Your task to perform on an android device: open app "Google Sheets" (install if not already installed) Image 0: 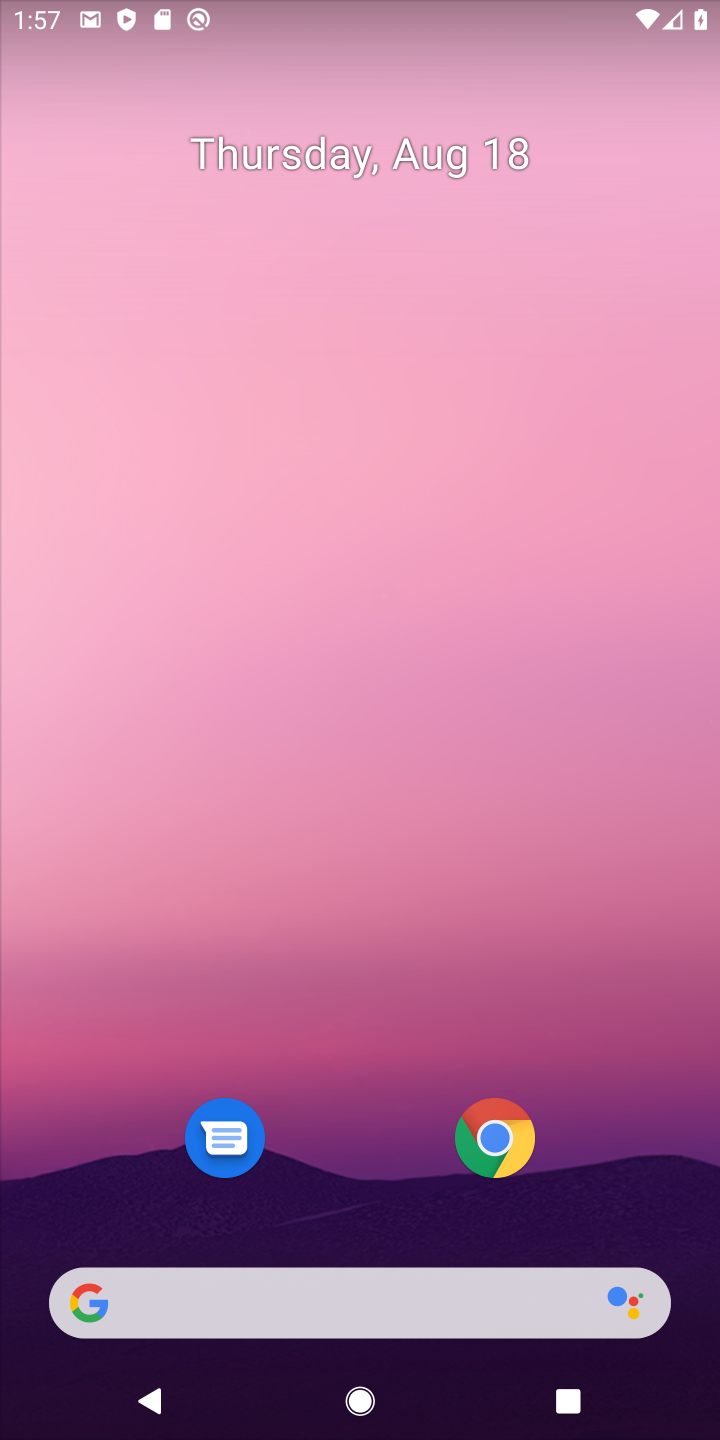
Step 0: drag from (362, 1267) to (365, 273)
Your task to perform on an android device: open app "Google Sheets" (install if not already installed) Image 1: 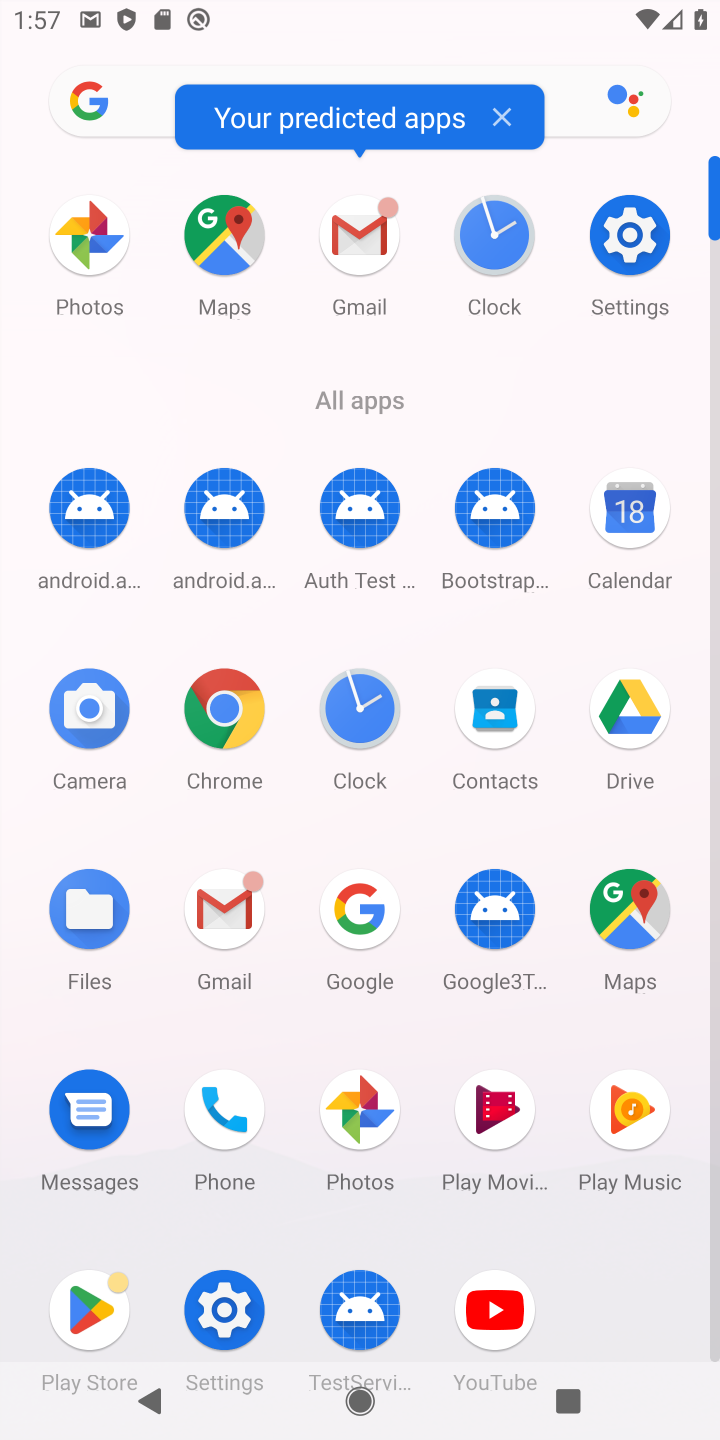
Step 1: click (88, 1285)
Your task to perform on an android device: open app "Google Sheets" (install if not already installed) Image 2: 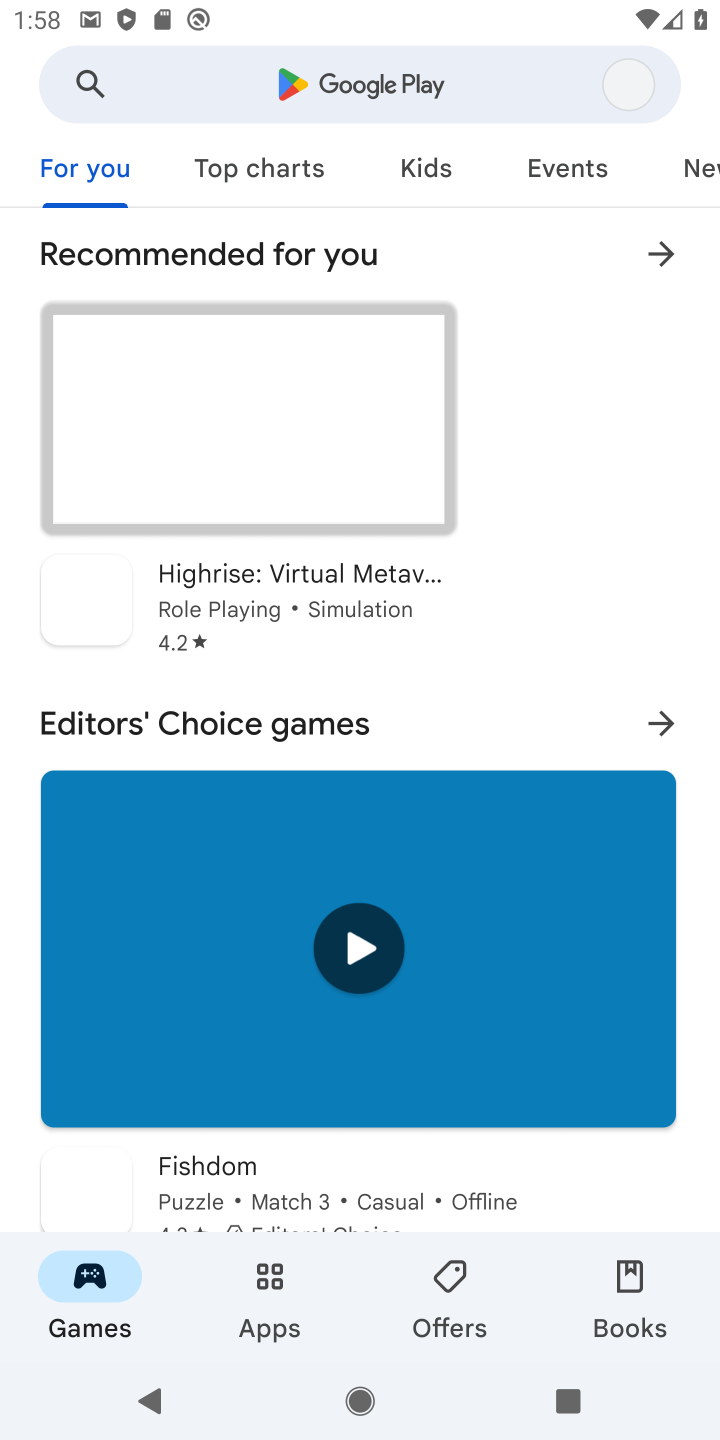
Step 2: click (255, 89)
Your task to perform on an android device: open app "Google Sheets" (install if not already installed) Image 3: 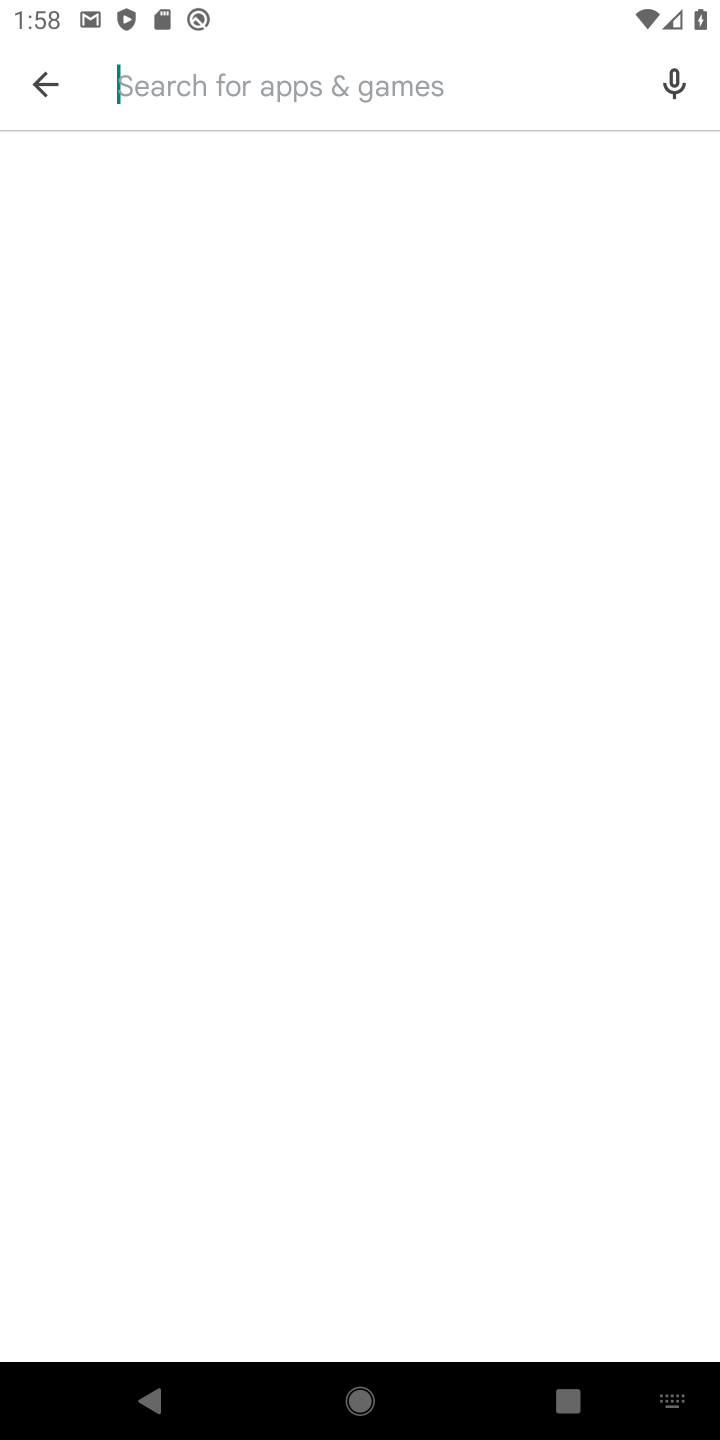
Step 3: type "Google Sheets"
Your task to perform on an android device: open app "Google Sheets" (install if not already installed) Image 4: 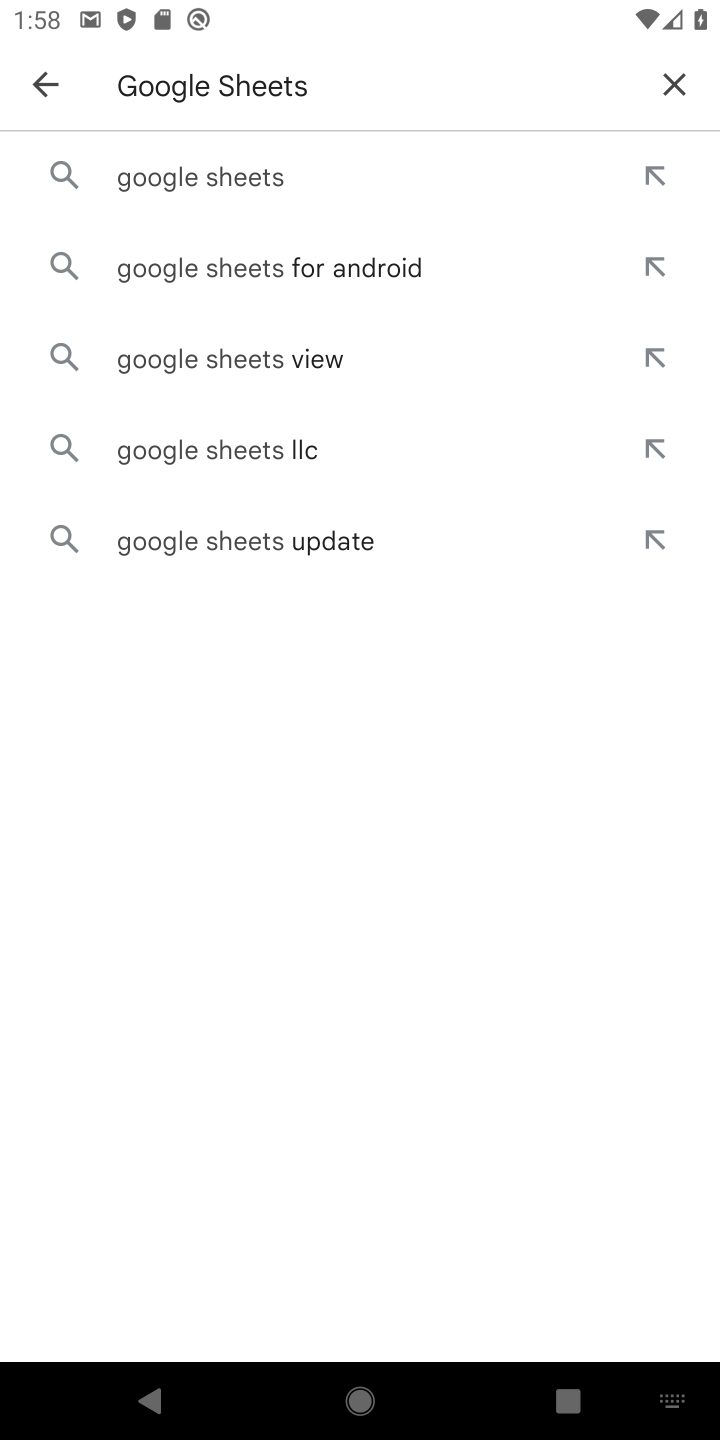
Step 4: click (164, 183)
Your task to perform on an android device: open app "Google Sheets" (install if not already installed) Image 5: 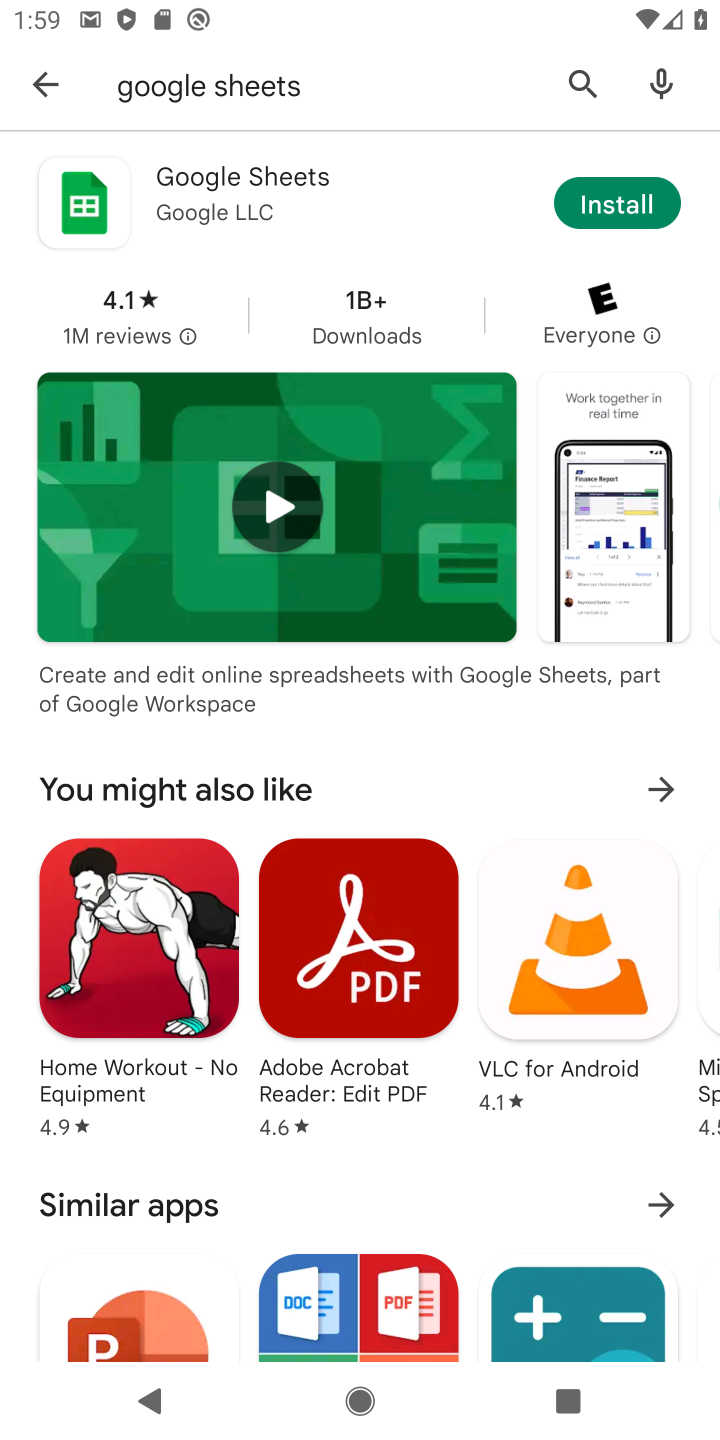
Step 5: click (636, 212)
Your task to perform on an android device: open app "Google Sheets" (install if not already installed) Image 6: 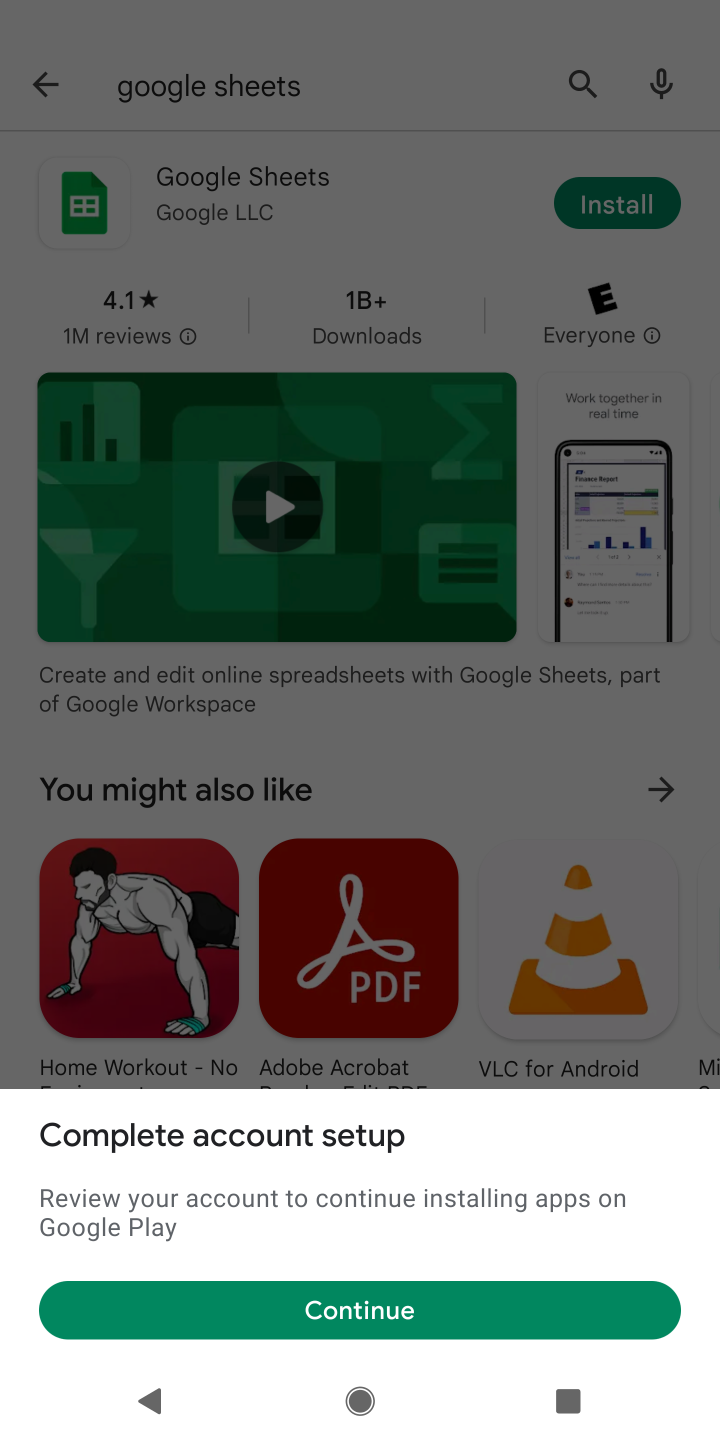
Step 6: click (202, 1280)
Your task to perform on an android device: open app "Google Sheets" (install if not already installed) Image 7: 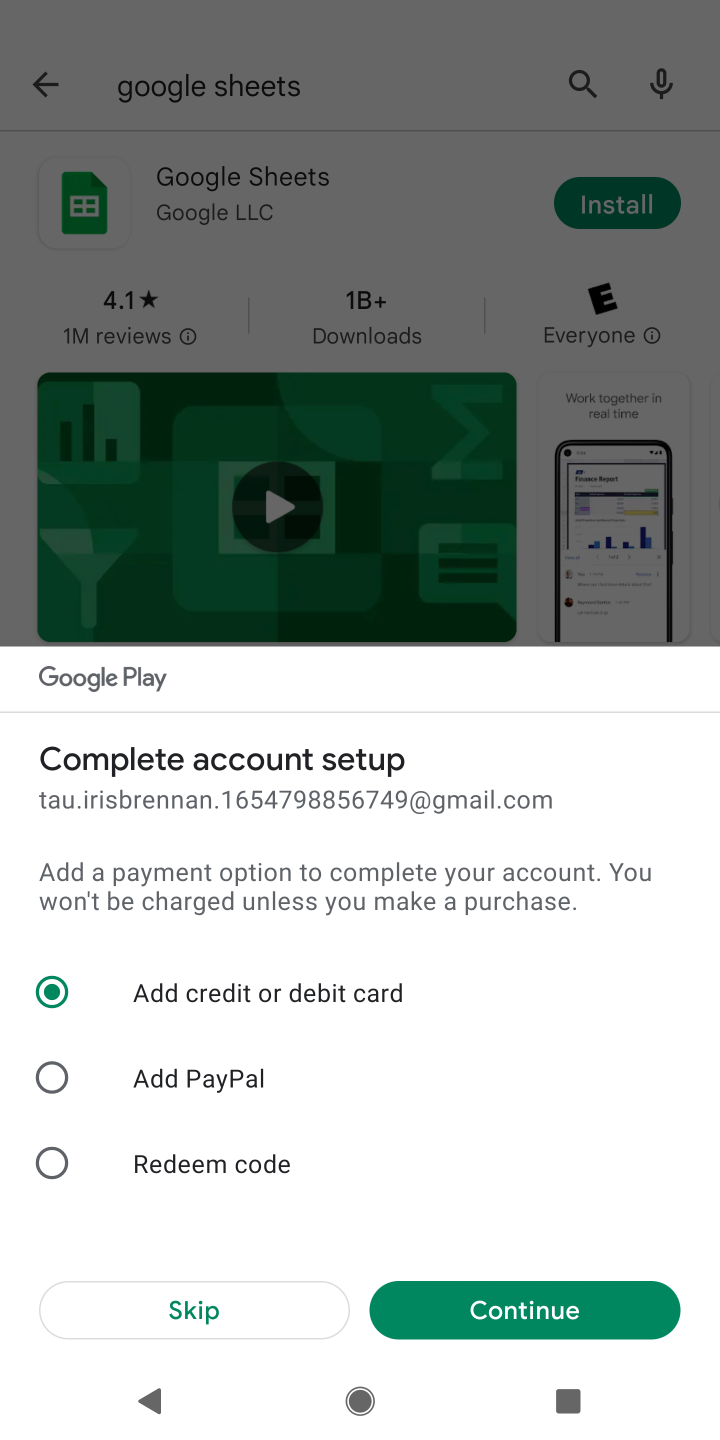
Step 7: click (79, 1288)
Your task to perform on an android device: open app "Google Sheets" (install if not already installed) Image 8: 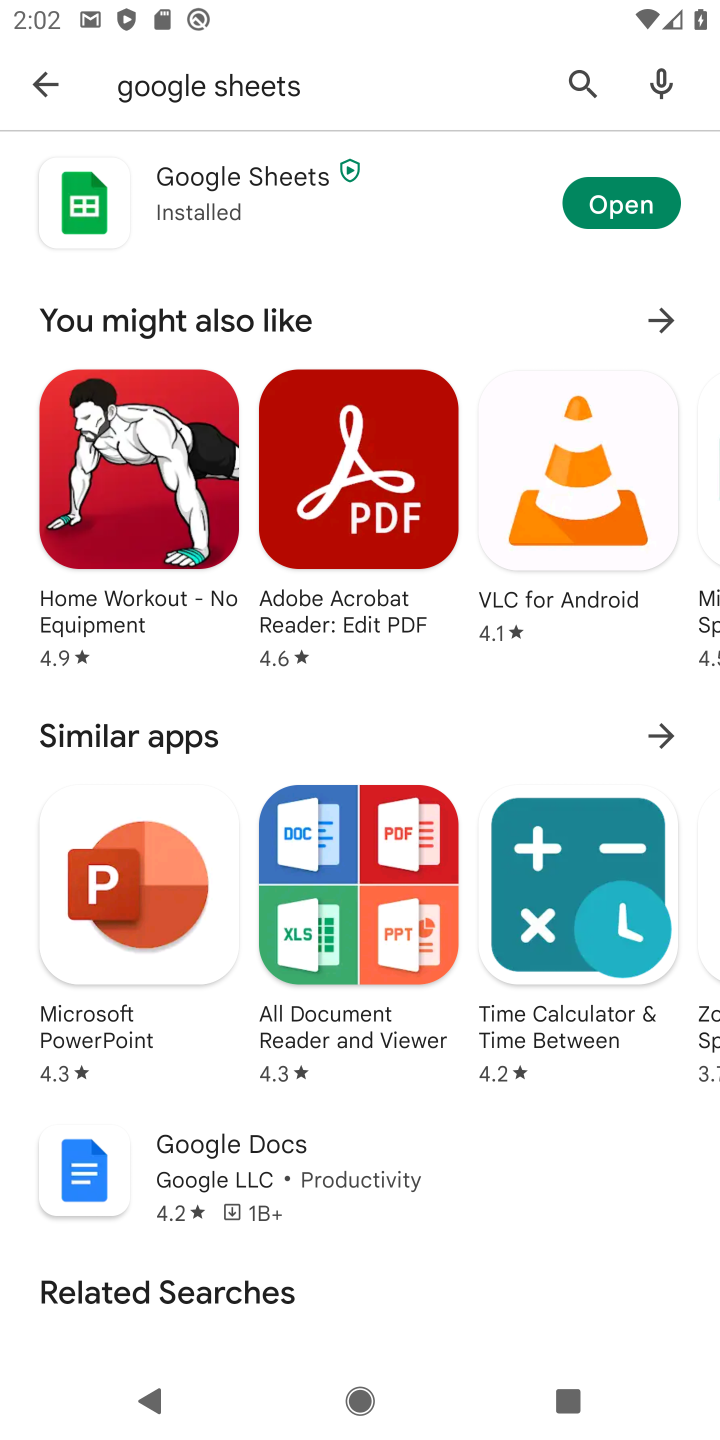
Step 8: click (608, 195)
Your task to perform on an android device: open app "Google Sheets" (install if not already installed) Image 9: 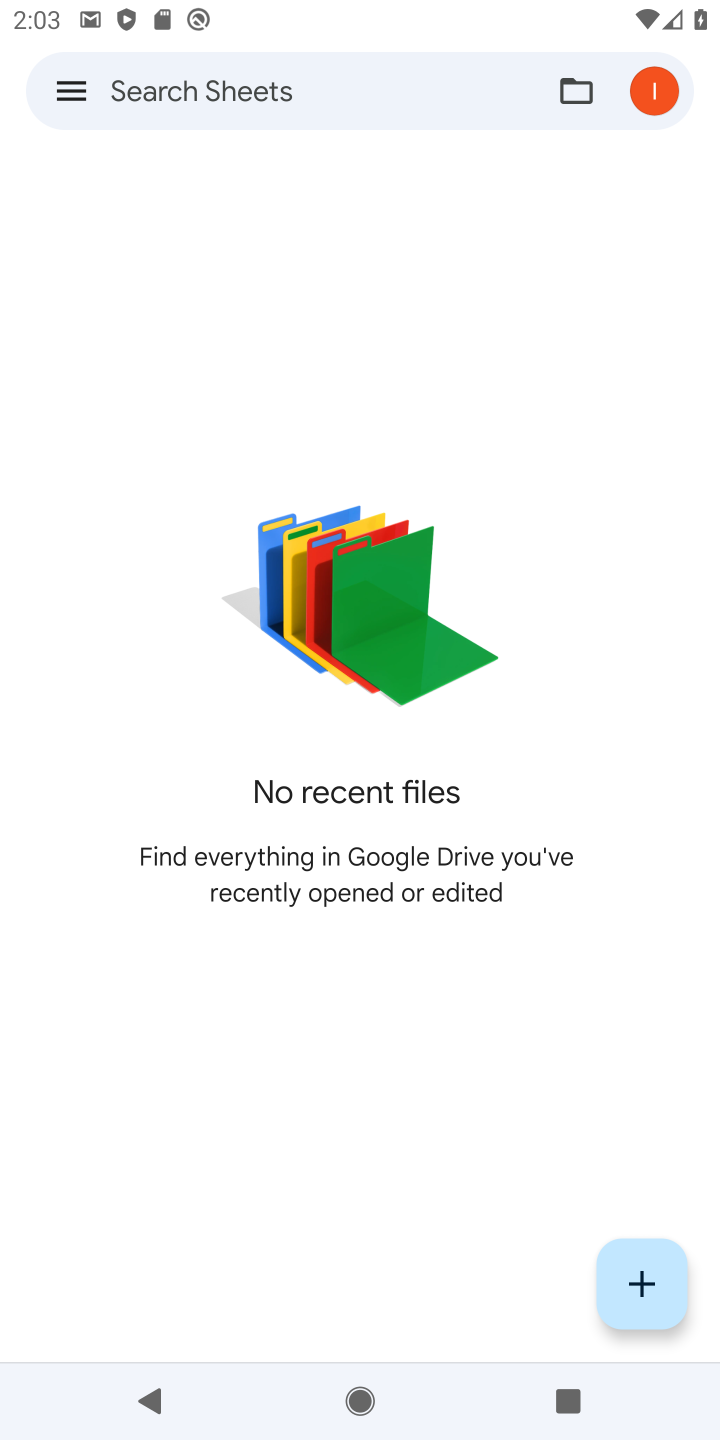
Step 9: task complete